Your task to perform on an android device: change keyboard looks Image 0: 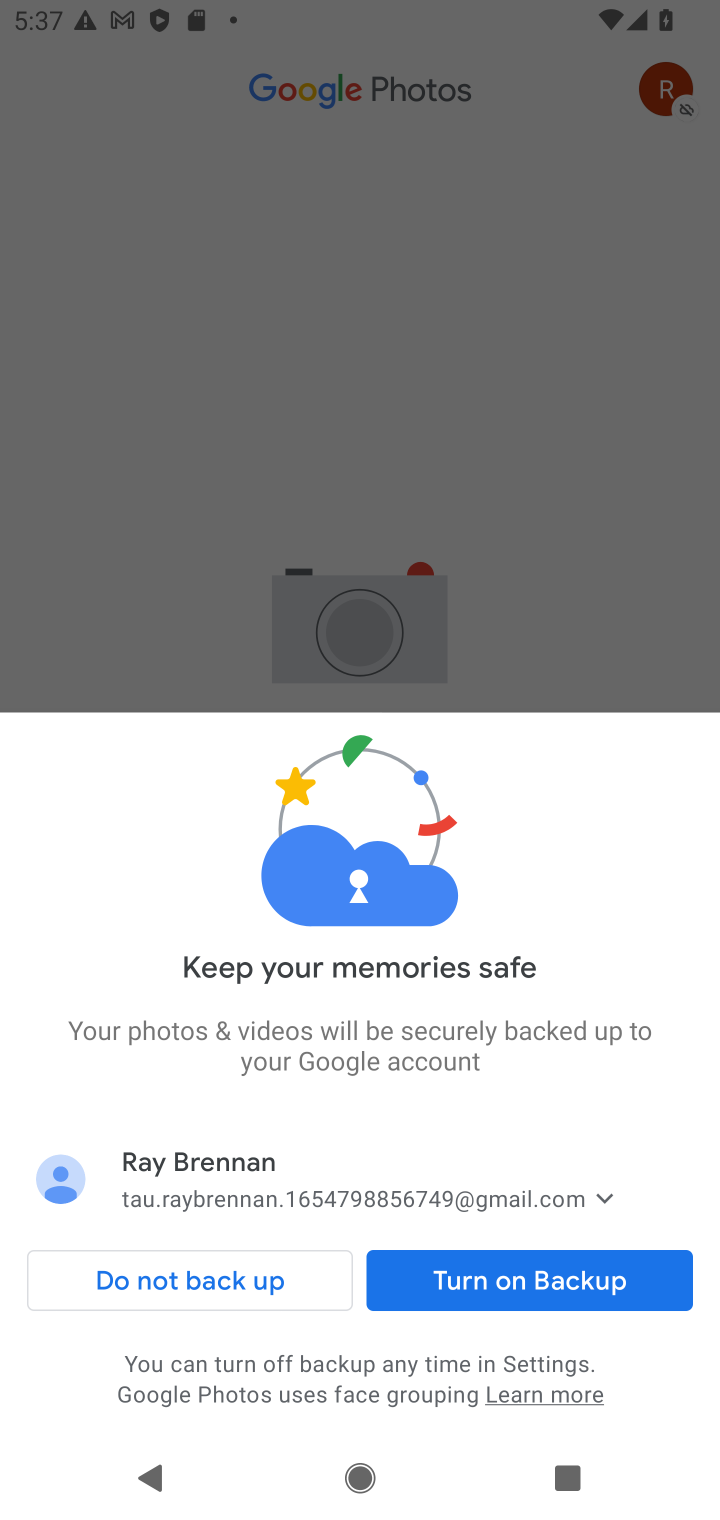
Step 0: click (218, 1255)
Your task to perform on an android device: change keyboard looks Image 1: 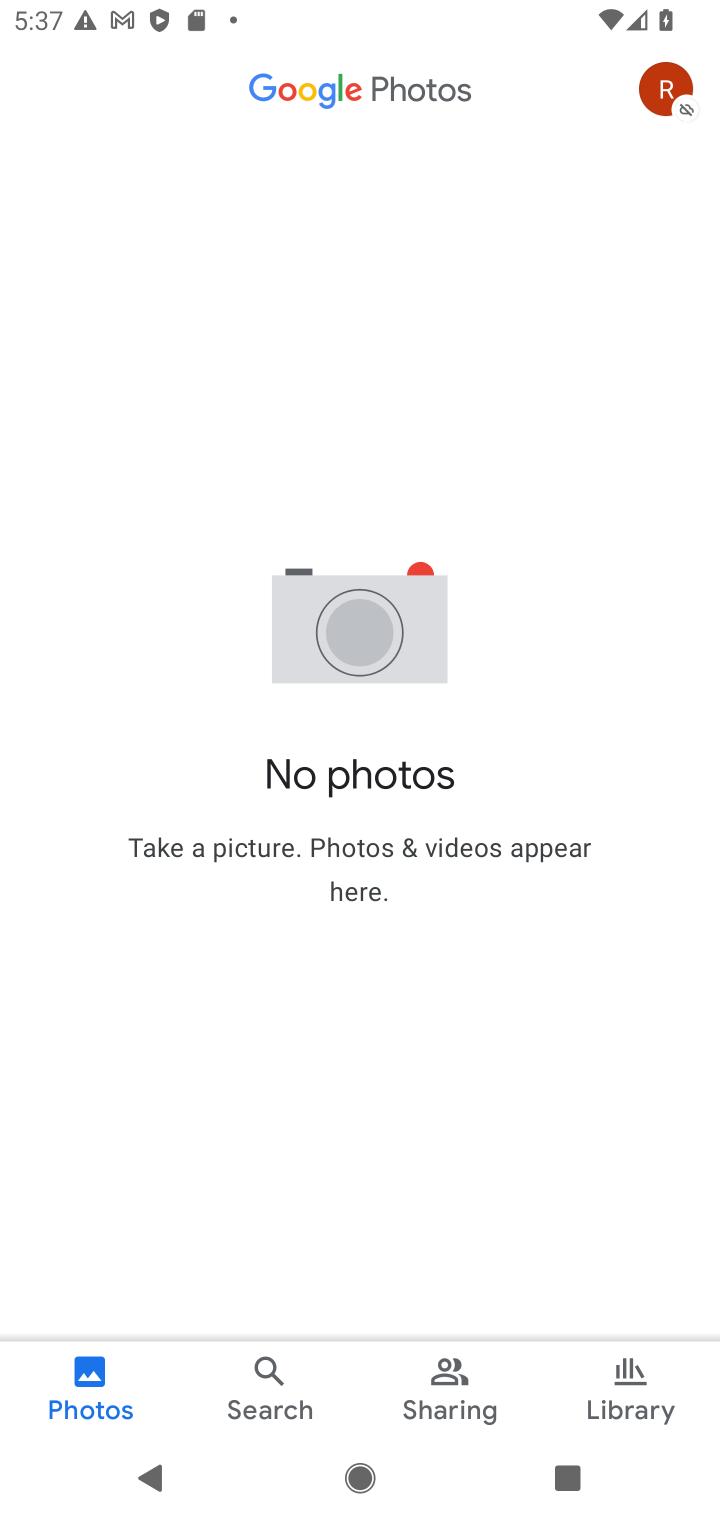
Step 1: task complete